Your task to perform on an android device: Open notification settings Image 0: 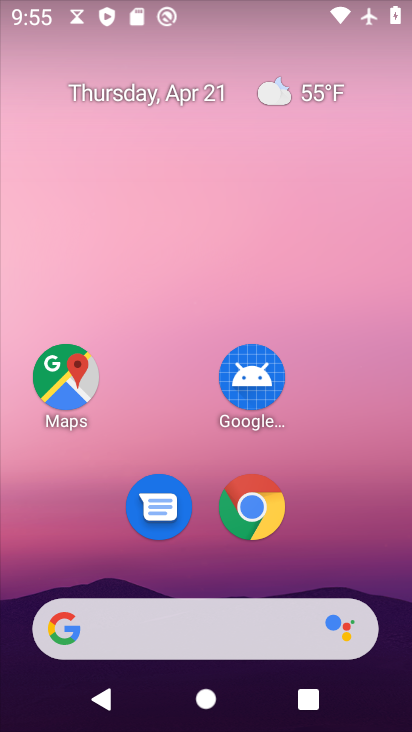
Step 0: drag from (313, 578) to (323, 231)
Your task to perform on an android device: Open notification settings Image 1: 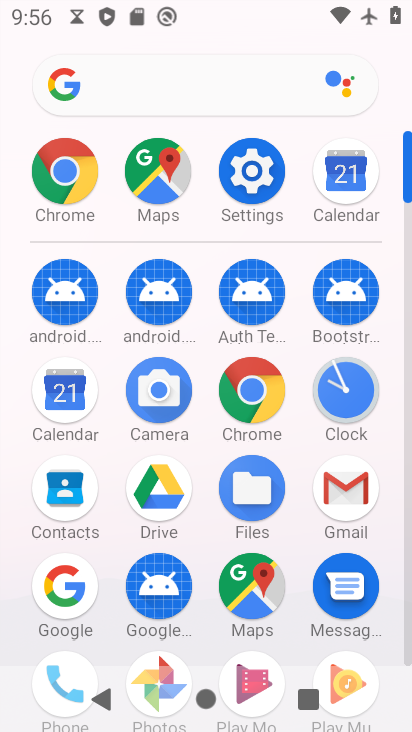
Step 1: click (257, 162)
Your task to perform on an android device: Open notification settings Image 2: 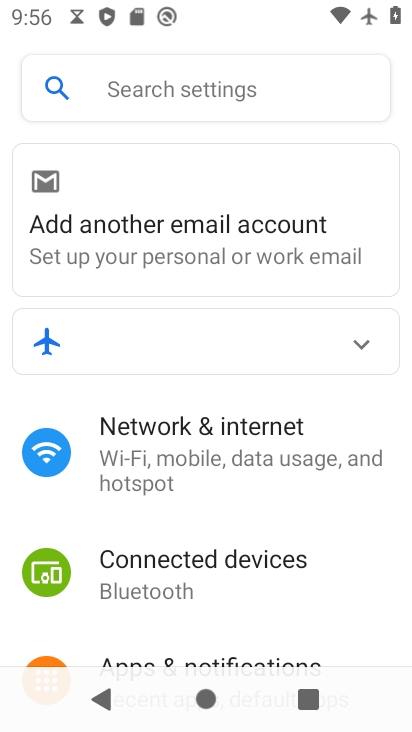
Step 2: drag from (227, 602) to (216, 290)
Your task to perform on an android device: Open notification settings Image 3: 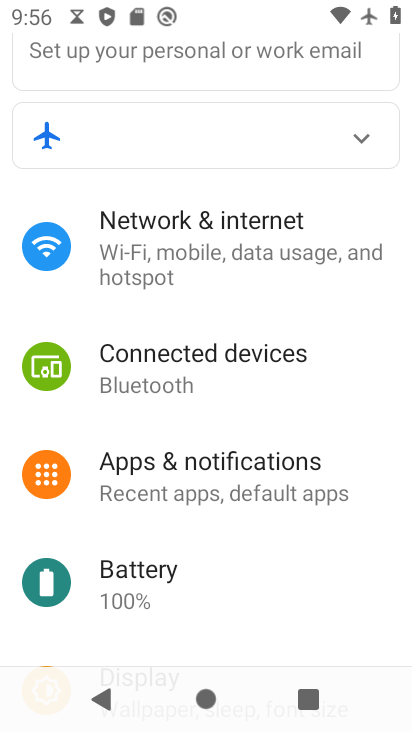
Step 3: click (202, 459)
Your task to perform on an android device: Open notification settings Image 4: 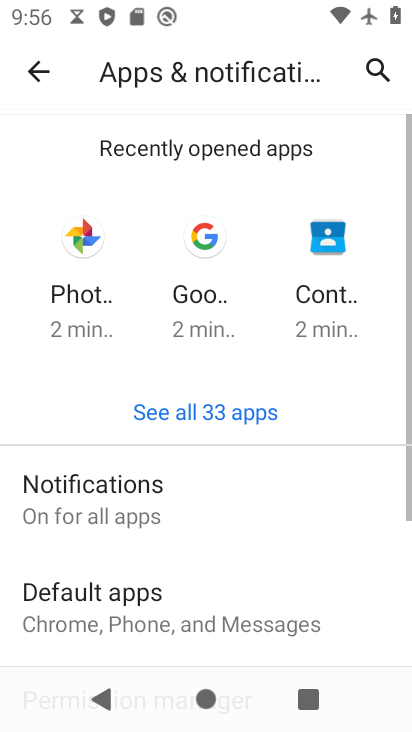
Step 4: click (198, 522)
Your task to perform on an android device: Open notification settings Image 5: 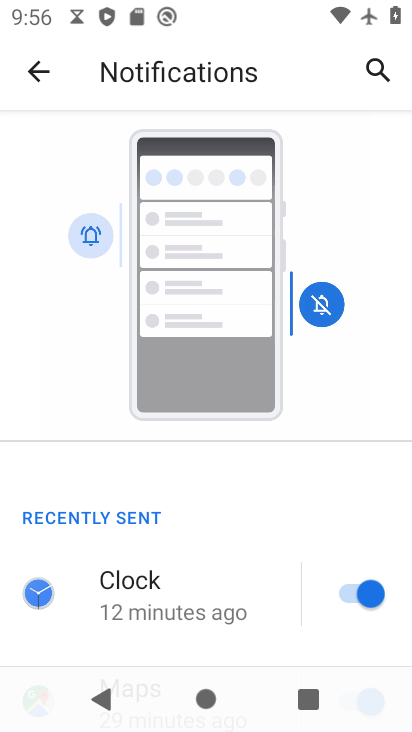
Step 5: task complete